Your task to perform on an android device: toggle notification dots Image 0: 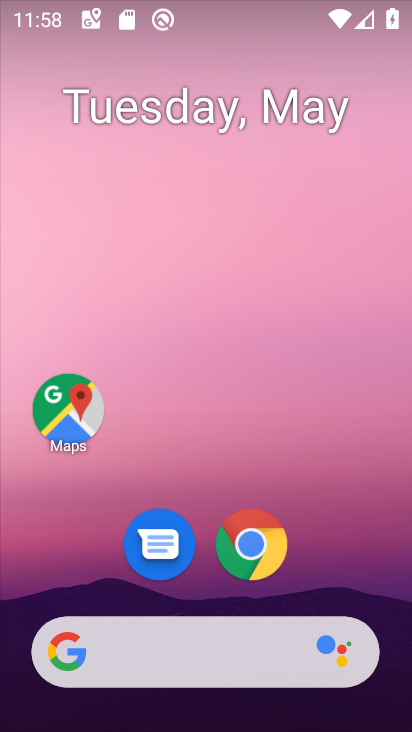
Step 0: drag from (213, 501) to (235, 106)
Your task to perform on an android device: toggle notification dots Image 1: 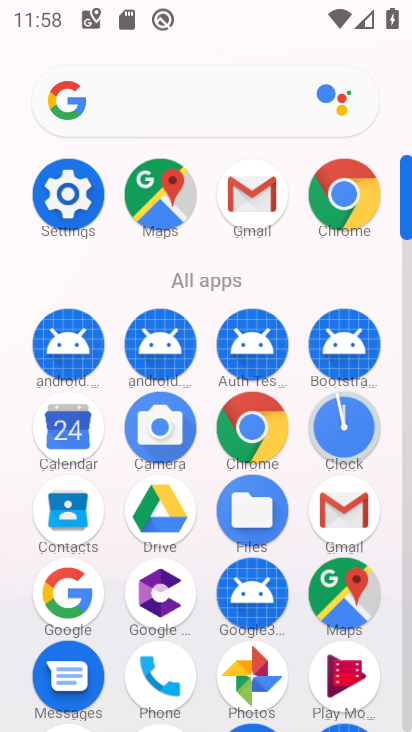
Step 1: click (59, 189)
Your task to perform on an android device: toggle notification dots Image 2: 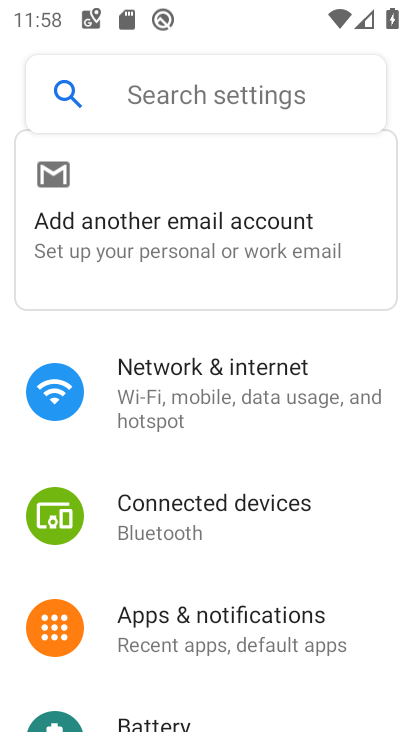
Step 2: drag from (253, 591) to (288, 365)
Your task to perform on an android device: toggle notification dots Image 3: 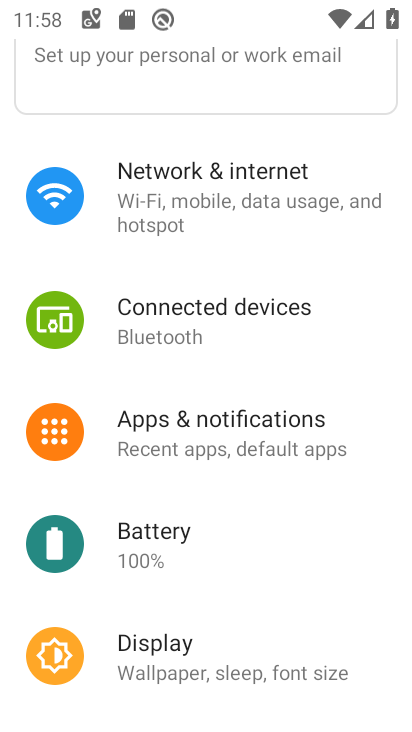
Step 3: click (271, 435)
Your task to perform on an android device: toggle notification dots Image 4: 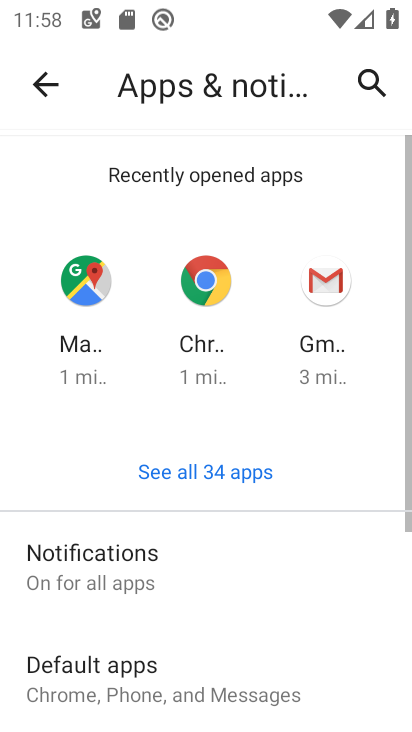
Step 4: drag from (228, 610) to (279, 186)
Your task to perform on an android device: toggle notification dots Image 5: 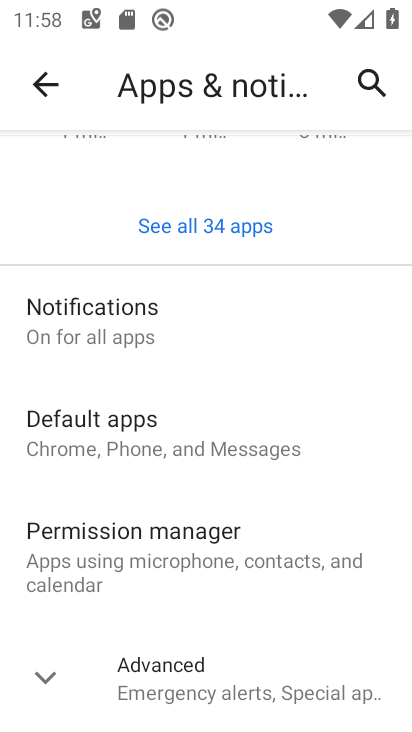
Step 5: click (212, 651)
Your task to perform on an android device: toggle notification dots Image 6: 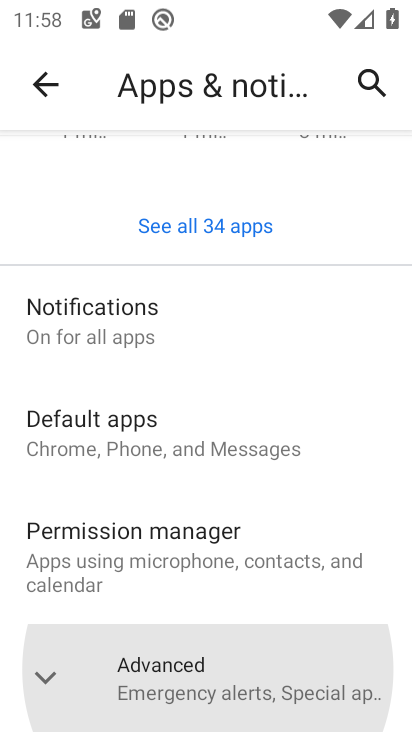
Step 6: drag from (208, 626) to (281, 171)
Your task to perform on an android device: toggle notification dots Image 7: 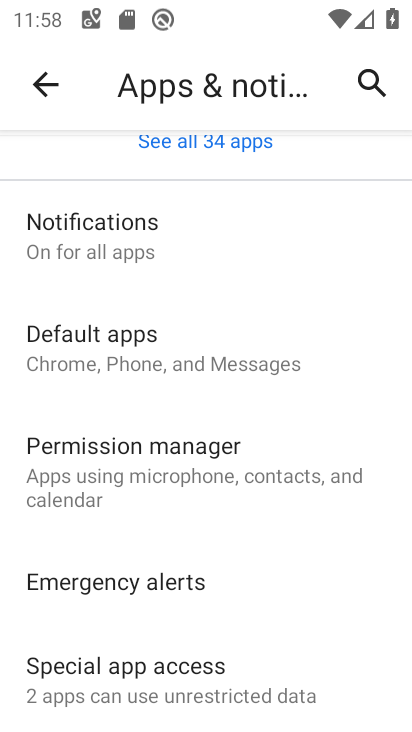
Step 7: click (181, 242)
Your task to perform on an android device: toggle notification dots Image 8: 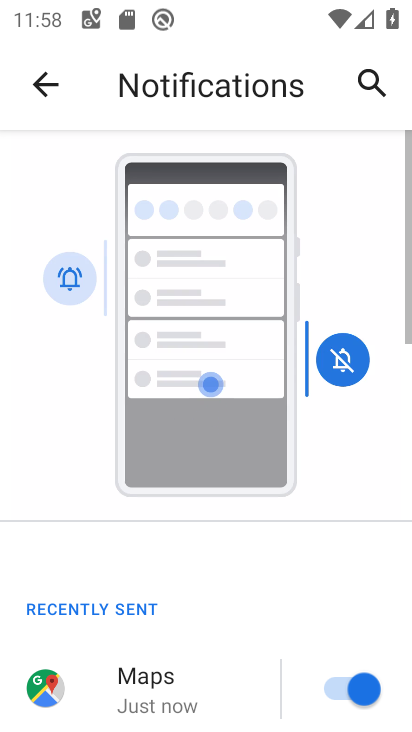
Step 8: drag from (249, 558) to (263, 138)
Your task to perform on an android device: toggle notification dots Image 9: 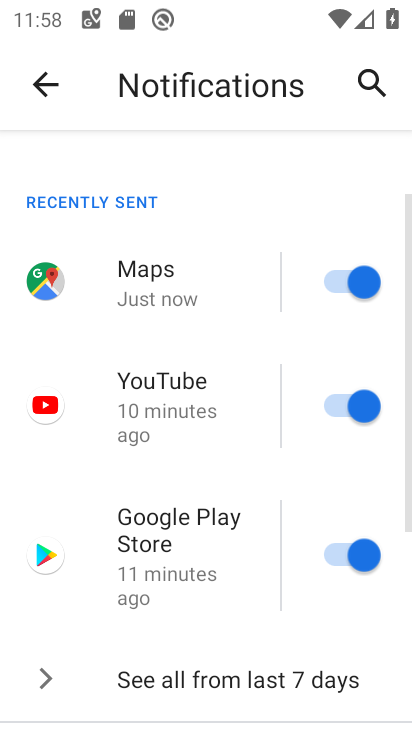
Step 9: drag from (249, 550) to (246, 126)
Your task to perform on an android device: toggle notification dots Image 10: 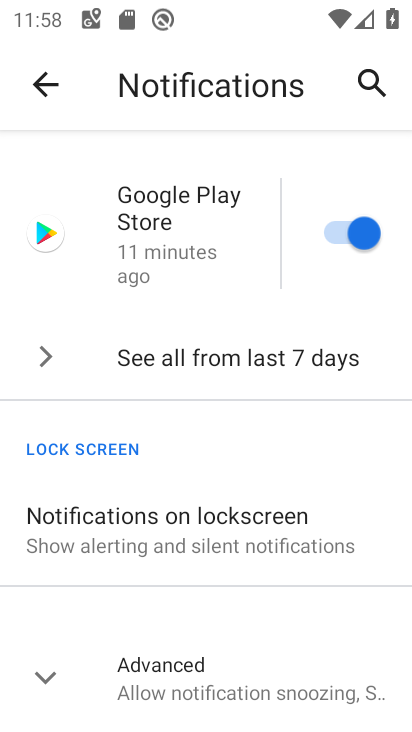
Step 10: click (209, 672)
Your task to perform on an android device: toggle notification dots Image 11: 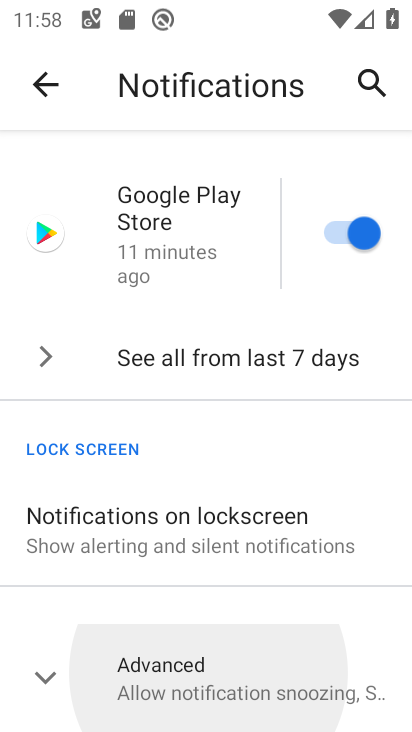
Step 11: drag from (201, 613) to (248, 83)
Your task to perform on an android device: toggle notification dots Image 12: 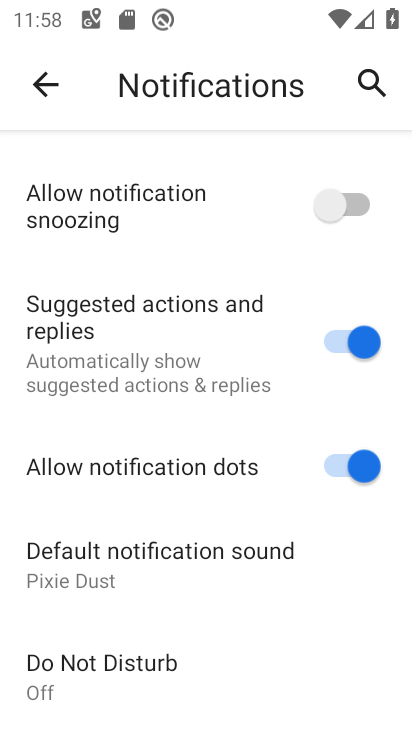
Step 12: click (343, 457)
Your task to perform on an android device: toggle notification dots Image 13: 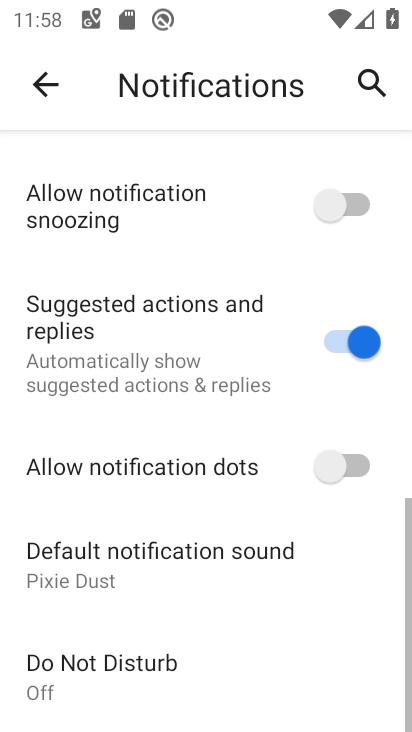
Step 13: task complete